Your task to perform on an android device: turn on the 24-hour format for clock Image 0: 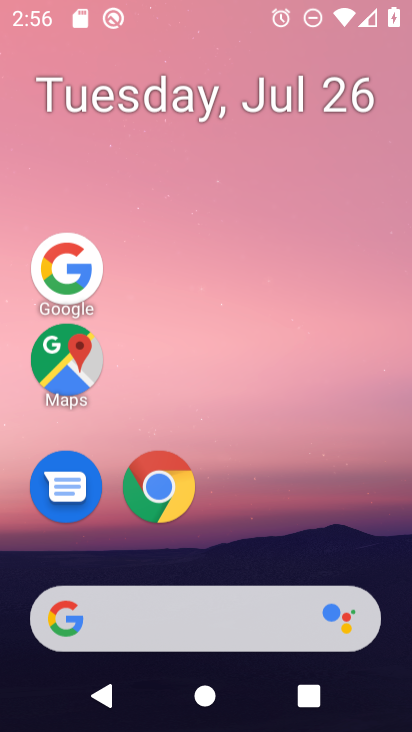
Step 0: drag from (215, 587) to (279, 98)
Your task to perform on an android device: turn on the 24-hour format for clock Image 1: 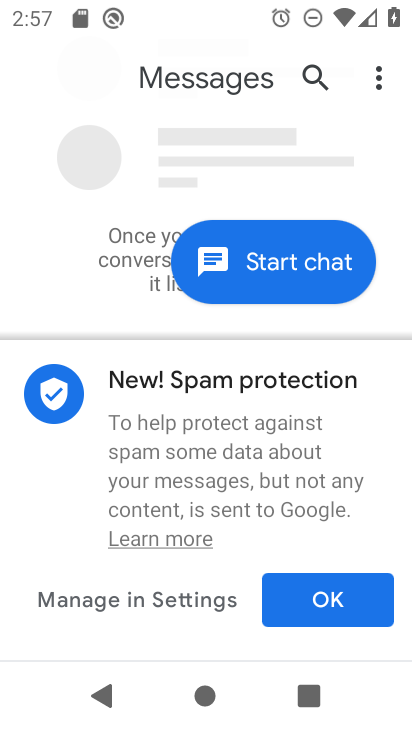
Step 1: press home button
Your task to perform on an android device: turn on the 24-hour format for clock Image 2: 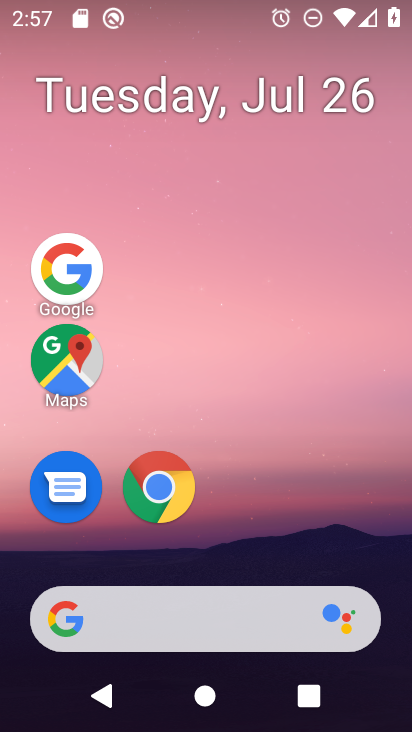
Step 2: drag from (204, 562) to (194, 113)
Your task to perform on an android device: turn on the 24-hour format for clock Image 3: 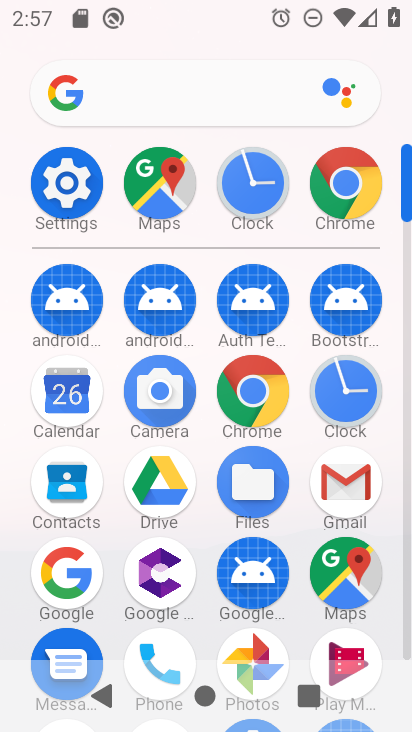
Step 3: click (337, 406)
Your task to perform on an android device: turn on the 24-hour format for clock Image 4: 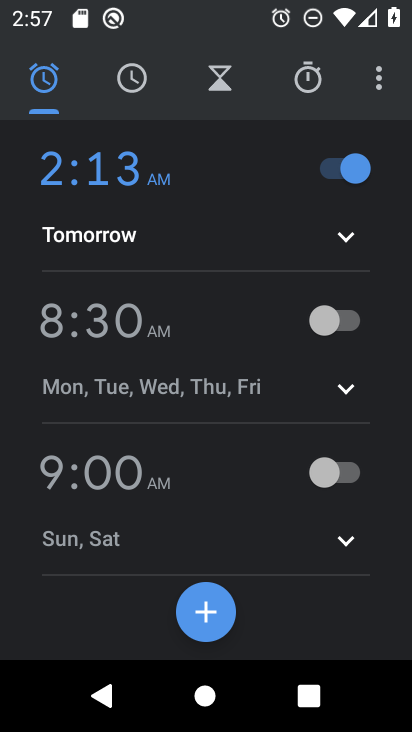
Step 4: click (382, 99)
Your task to perform on an android device: turn on the 24-hour format for clock Image 5: 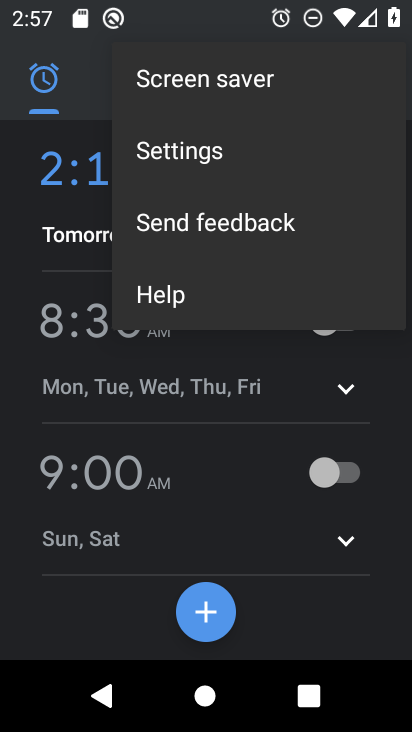
Step 5: click (207, 163)
Your task to perform on an android device: turn on the 24-hour format for clock Image 6: 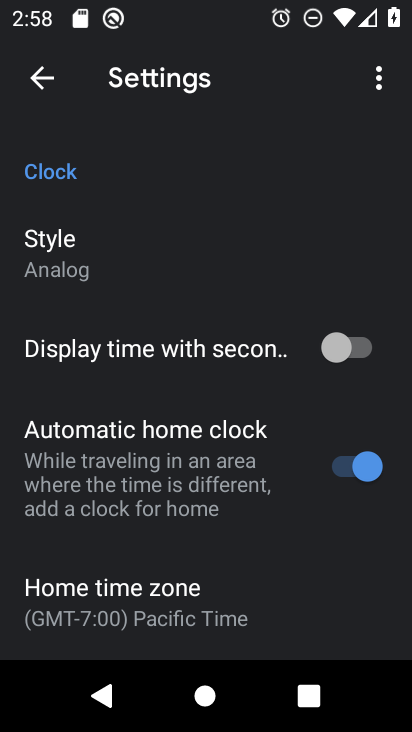
Step 6: drag from (153, 567) to (174, 264)
Your task to perform on an android device: turn on the 24-hour format for clock Image 7: 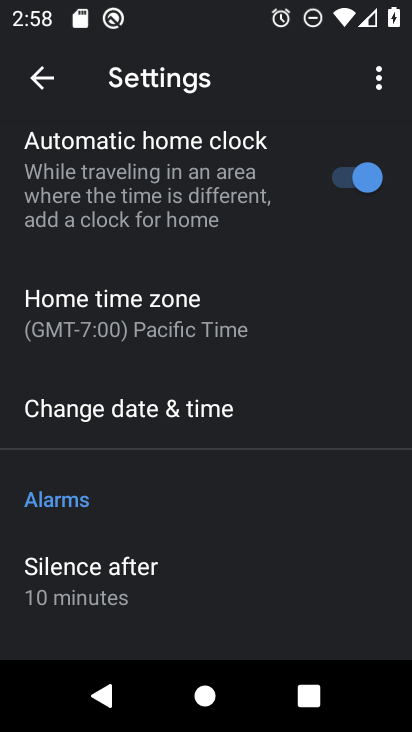
Step 7: click (152, 421)
Your task to perform on an android device: turn on the 24-hour format for clock Image 8: 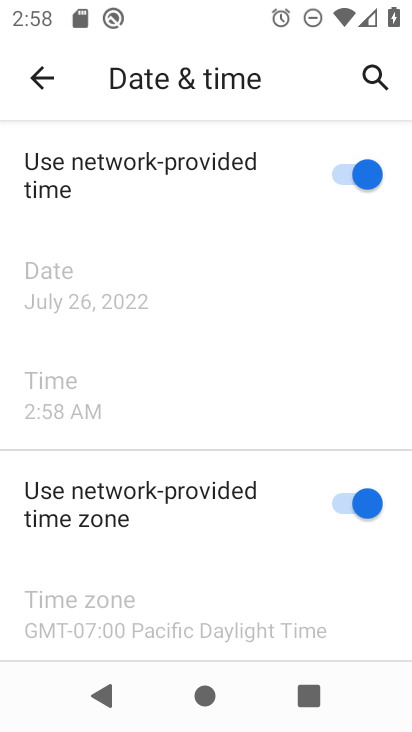
Step 8: task complete